Your task to perform on an android device: Open Google Maps Image 0: 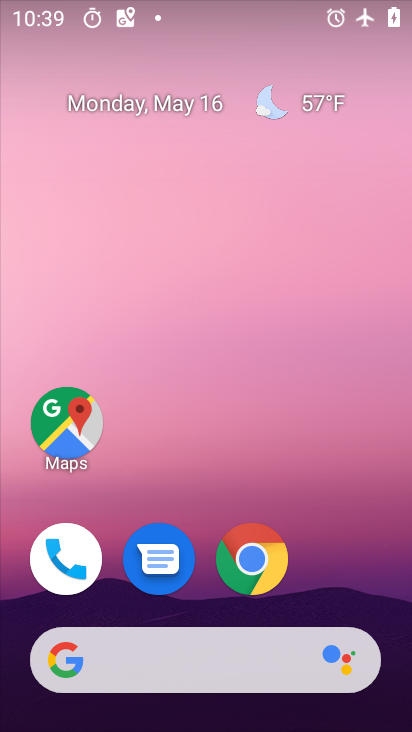
Step 0: drag from (346, 571) to (272, 565)
Your task to perform on an android device: Open Google Maps Image 1: 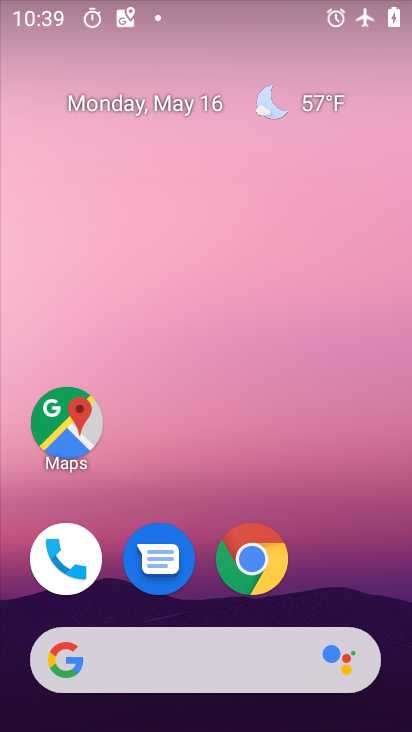
Step 1: click (55, 413)
Your task to perform on an android device: Open Google Maps Image 2: 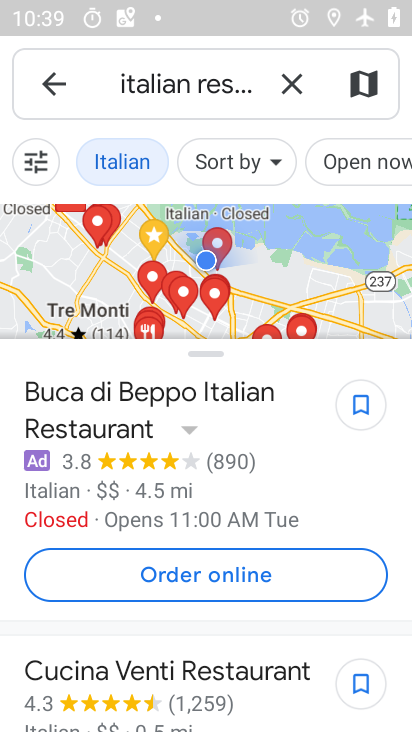
Step 2: task complete